Your task to perform on an android device: Open Google Maps and go to "Timeline" Image 0: 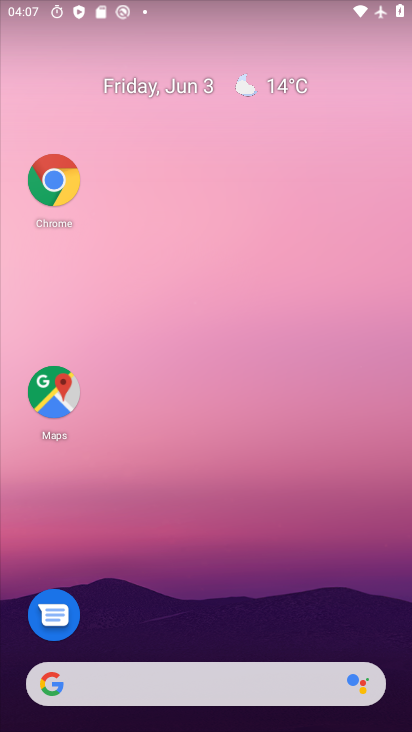
Step 0: click (46, 393)
Your task to perform on an android device: Open Google Maps and go to "Timeline" Image 1: 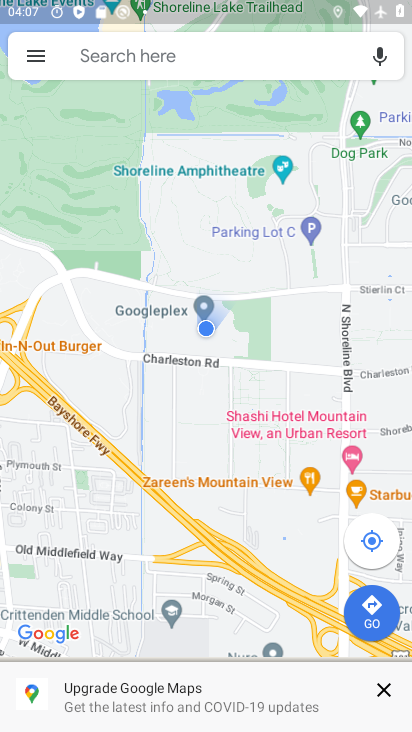
Step 1: click (33, 59)
Your task to perform on an android device: Open Google Maps and go to "Timeline" Image 2: 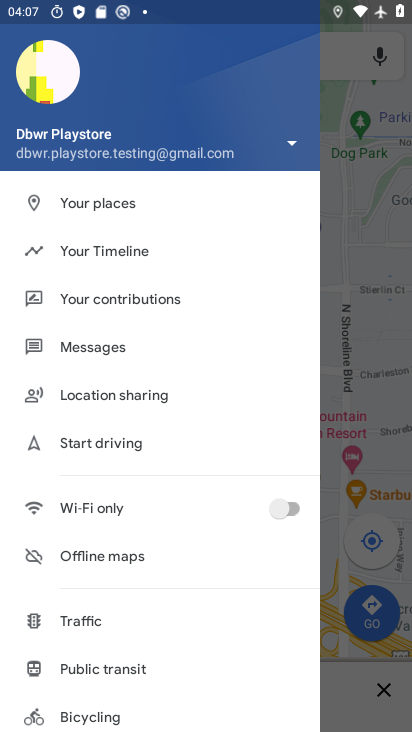
Step 2: click (86, 261)
Your task to perform on an android device: Open Google Maps and go to "Timeline" Image 3: 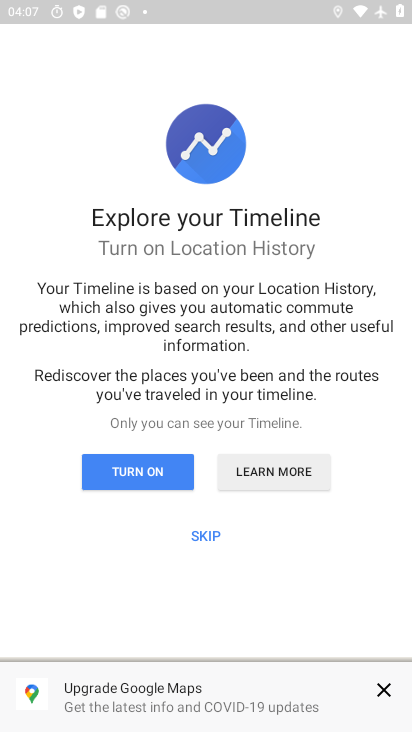
Step 3: click (388, 689)
Your task to perform on an android device: Open Google Maps and go to "Timeline" Image 4: 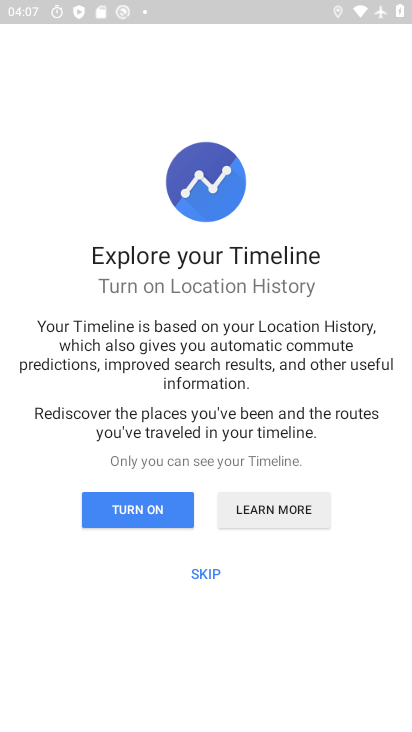
Step 4: click (202, 536)
Your task to perform on an android device: Open Google Maps and go to "Timeline" Image 5: 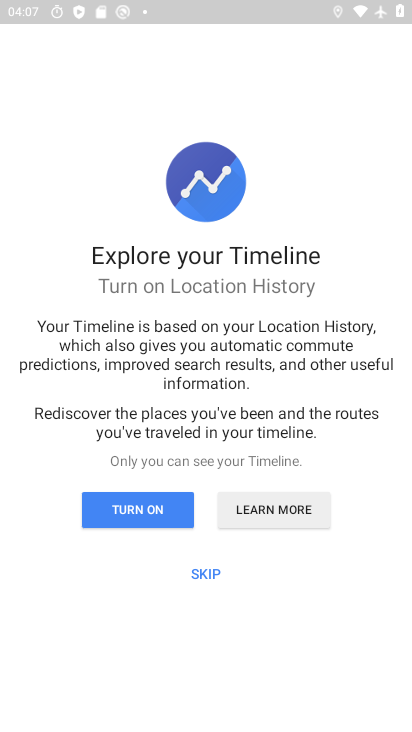
Step 5: click (207, 582)
Your task to perform on an android device: Open Google Maps and go to "Timeline" Image 6: 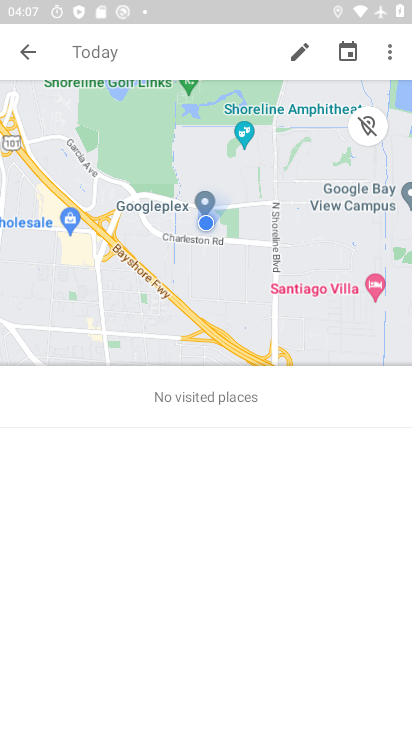
Step 6: task complete